Your task to perform on an android device: open app "Skype" (install if not already installed) and enter user name: "rumor@gmail.com" and password: "kinsman" Image 0: 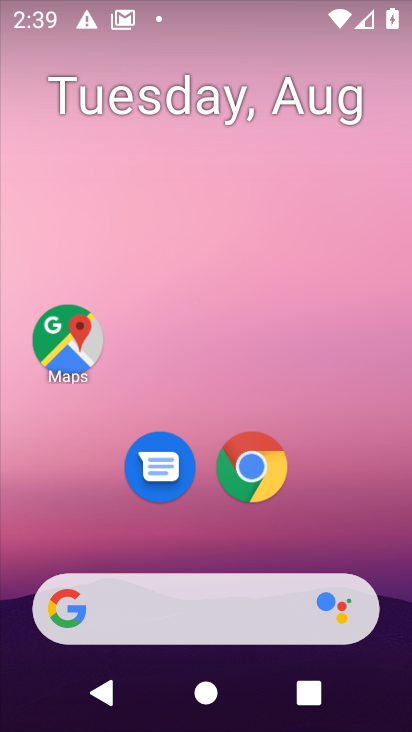
Step 0: task complete